Your task to perform on an android device: clear all cookies in the chrome app Image 0: 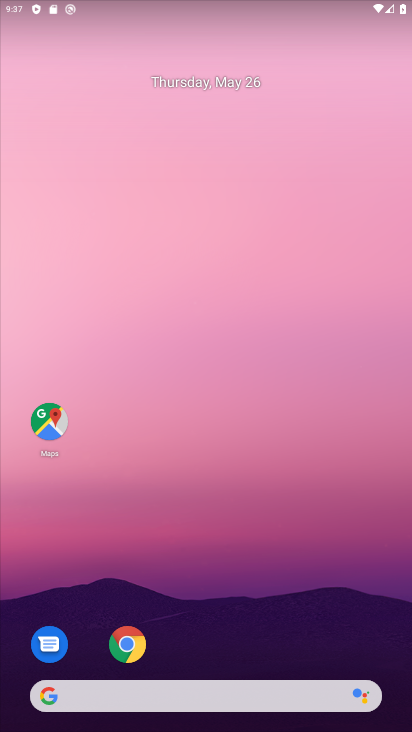
Step 0: drag from (220, 649) to (105, 269)
Your task to perform on an android device: clear all cookies in the chrome app Image 1: 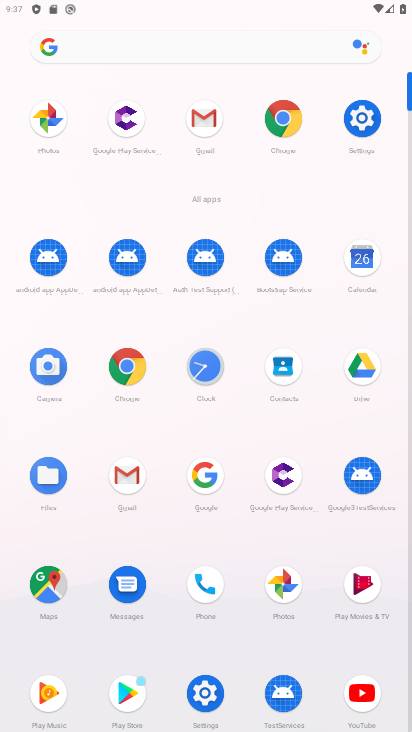
Step 1: click (281, 127)
Your task to perform on an android device: clear all cookies in the chrome app Image 2: 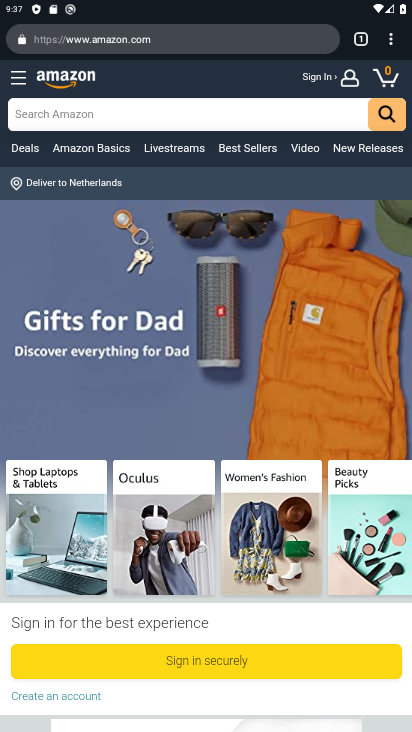
Step 2: drag from (392, 45) to (242, 478)
Your task to perform on an android device: clear all cookies in the chrome app Image 3: 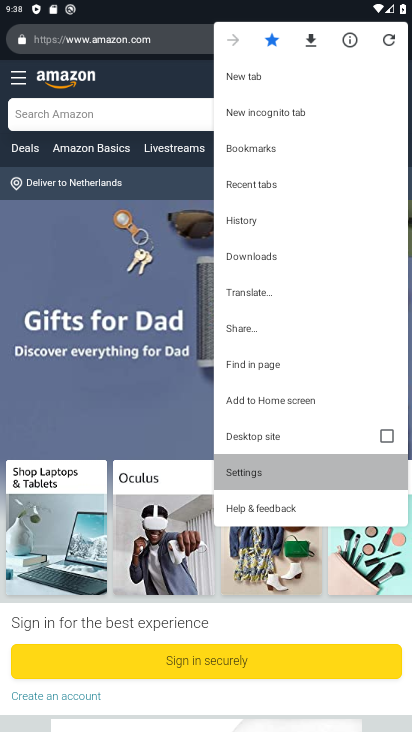
Step 3: click (242, 478)
Your task to perform on an android device: clear all cookies in the chrome app Image 4: 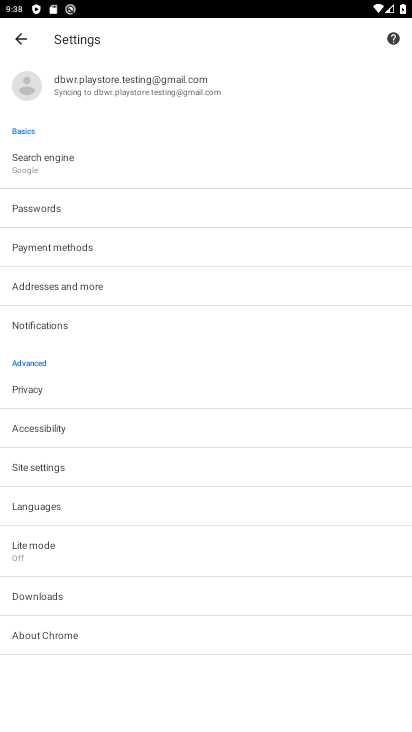
Step 4: click (32, 460)
Your task to perform on an android device: clear all cookies in the chrome app Image 5: 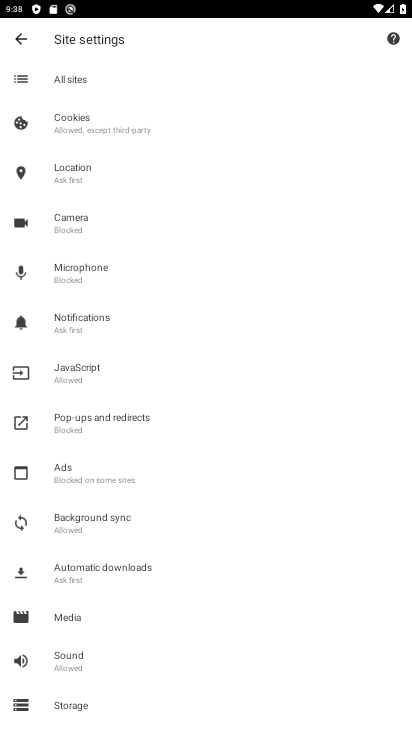
Step 5: click (80, 110)
Your task to perform on an android device: clear all cookies in the chrome app Image 6: 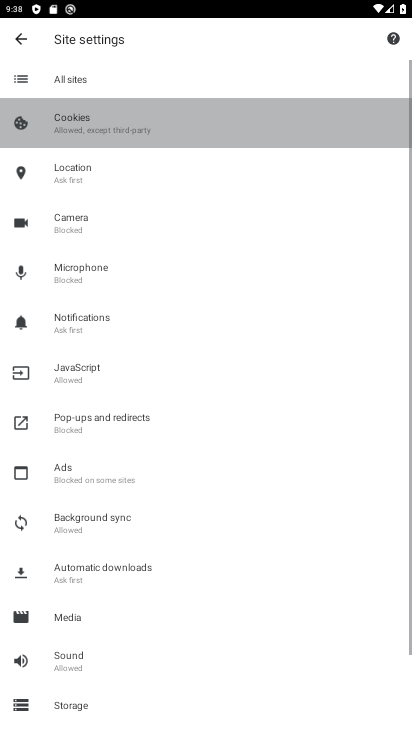
Step 6: click (79, 111)
Your task to perform on an android device: clear all cookies in the chrome app Image 7: 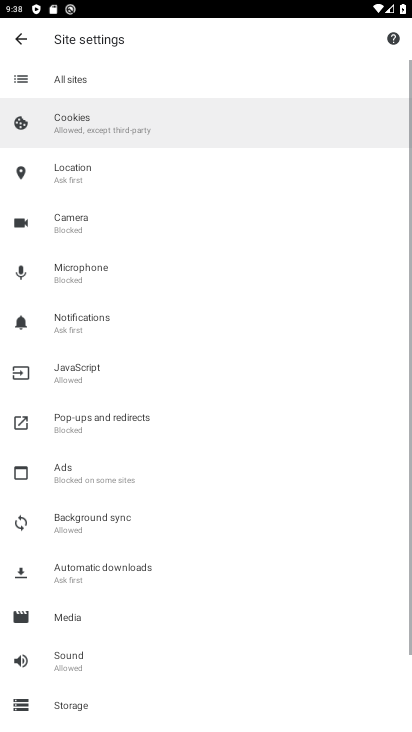
Step 7: click (79, 111)
Your task to perform on an android device: clear all cookies in the chrome app Image 8: 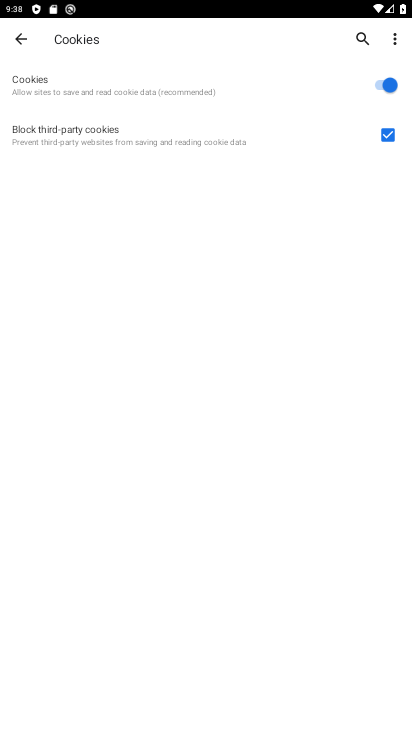
Step 8: task complete